Your task to perform on an android device: Open Android settings Image 0: 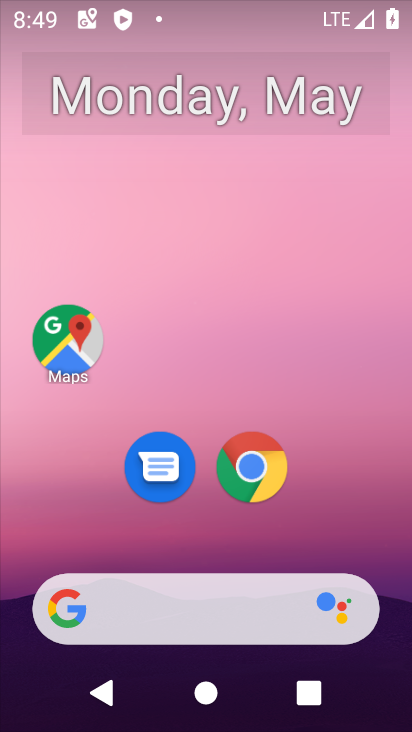
Step 0: drag from (342, 521) to (229, 50)
Your task to perform on an android device: Open Android settings Image 1: 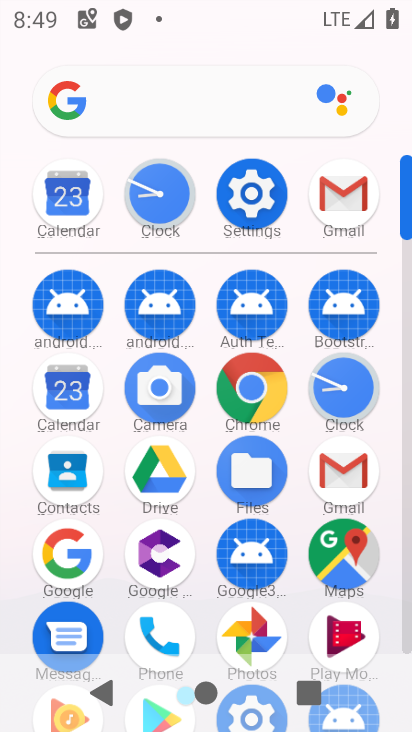
Step 1: click (261, 210)
Your task to perform on an android device: Open Android settings Image 2: 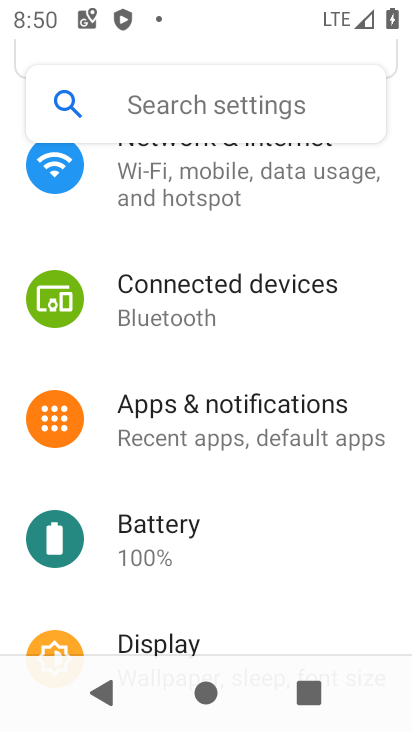
Step 2: drag from (293, 587) to (258, 56)
Your task to perform on an android device: Open Android settings Image 3: 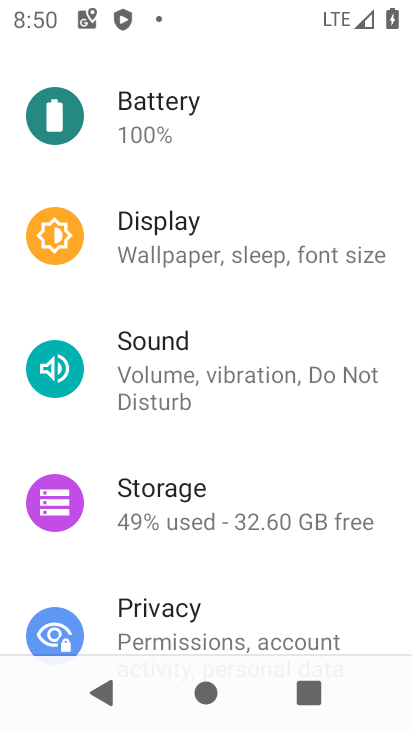
Step 3: drag from (297, 563) to (217, 3)
Your task to perform on an android device: Open Android settings Image 4: 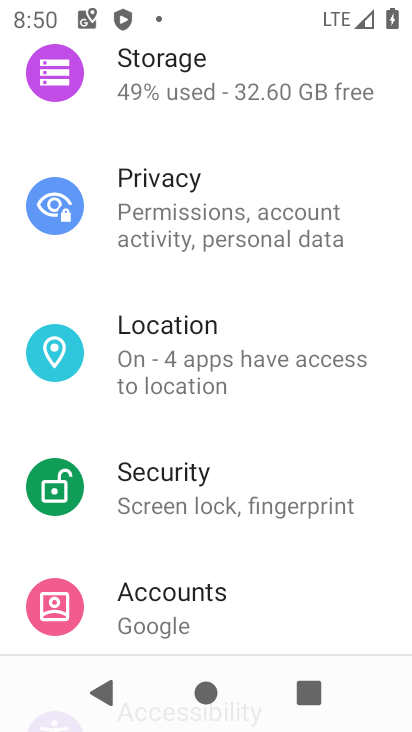
Step 4: drag from (276, 578) to (274, 123)
Your task to perform on an android device: Open Android settings Image 5: 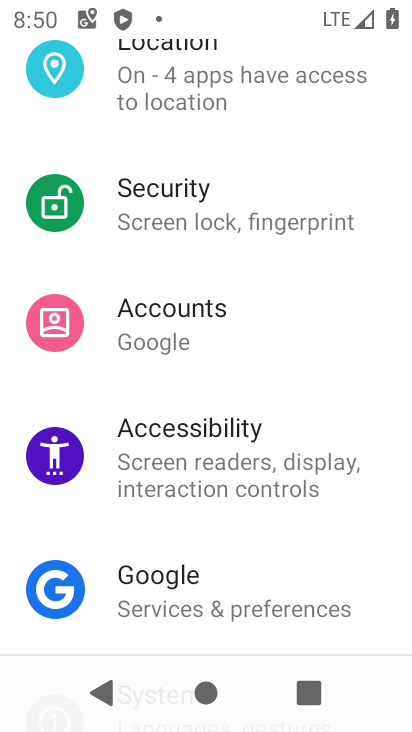
Step 5: drag from (282, 176) to (277, 61)
Your task to perform on an android device: Open Android settings Image 6: 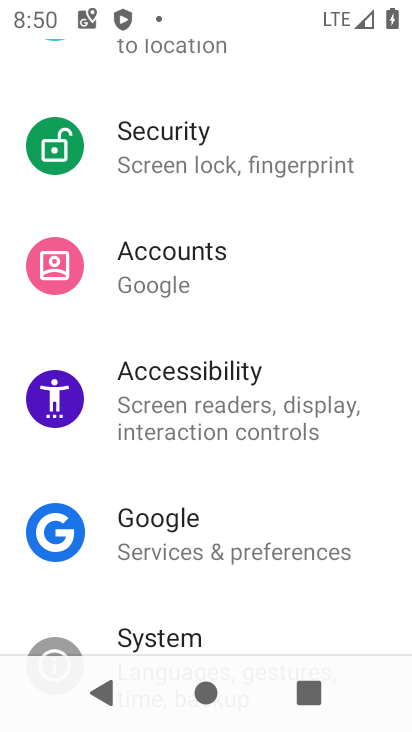
Step 6: drag from (298, 507) to (281, 144)
Your task to perform on an android device: Open Android settings Image 7: 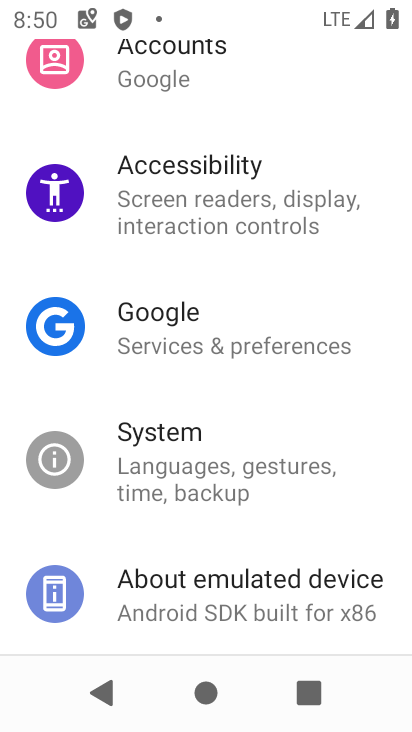
Step 7: click (245, 594)
Your task to perform on an android device: Open Android settings Image 8: 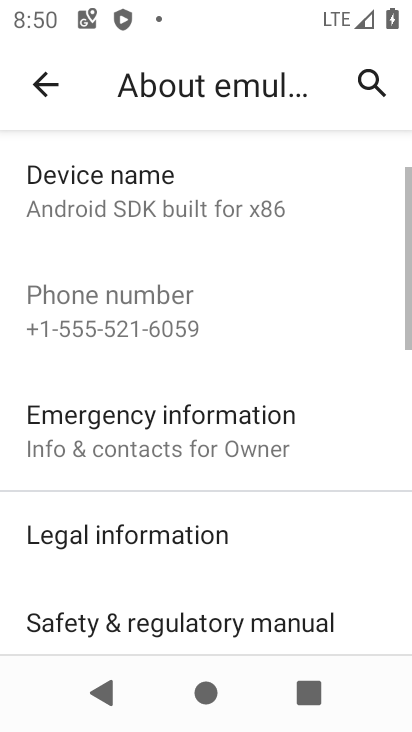
Step 8: drag from (283, 571) to (259, 49)
Your task to perform on an android device: Open Android settings Image 9: 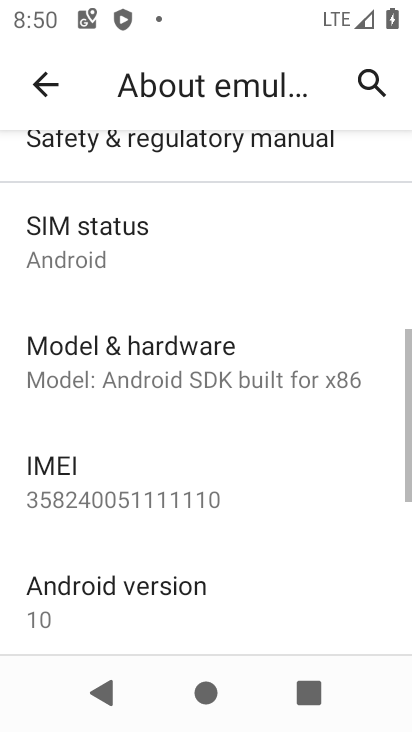
Step 9: click (214, 607)
Your task to perform on an android device: Open Android settings Image 10: 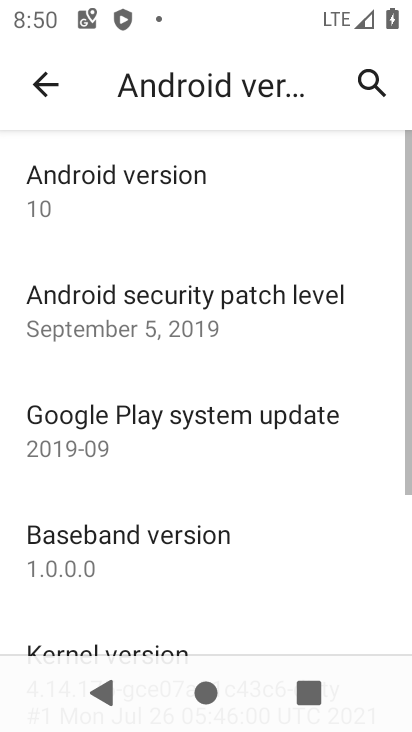
Step 10: task complete